Your task to perform on an android device: add a label to a message in the gmail app Image 0: 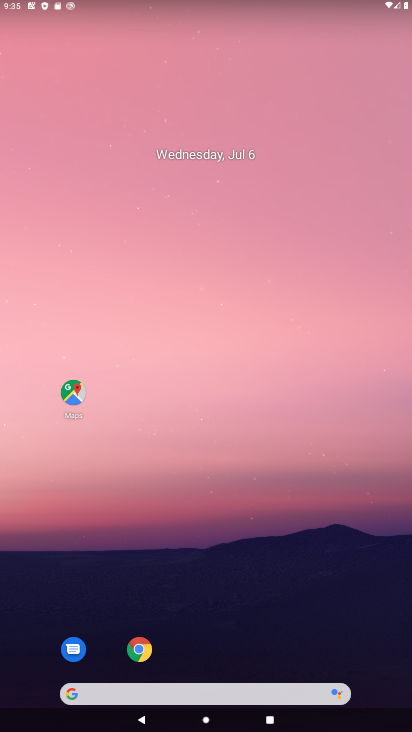
Step 0: drag from (246, 633) to (270, 135)
Your task to perform on an android device: add a label to a message in the gmail app Image 1: 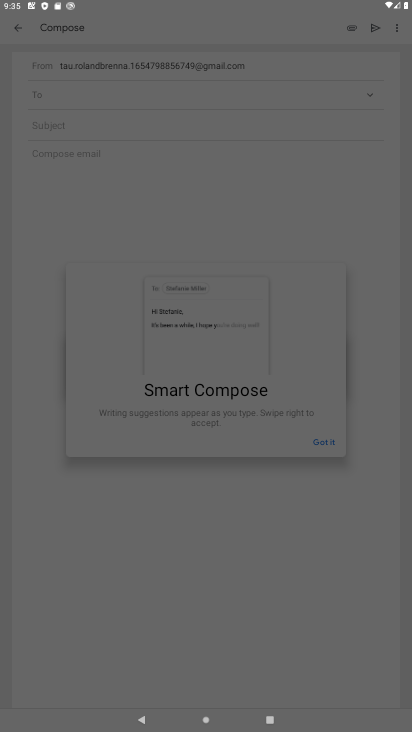
Step 1: press home button
Your task to perform on an android device: add a label to a message in the gmail app Image 2: 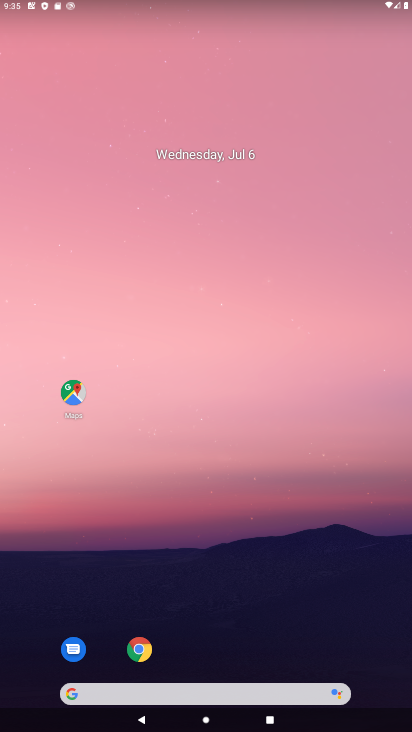
Step 2: drag from (236, 661) to (246, 221)
Your task to perform on an android device: add a label to a message in the gmail app Image 3: 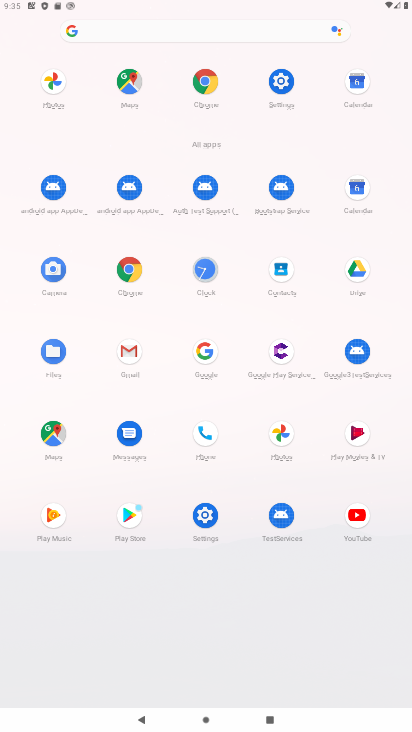
Step 3: click (132, 348)
Your task to perform on an android device: add a label to a message in the gmail app Image 4: 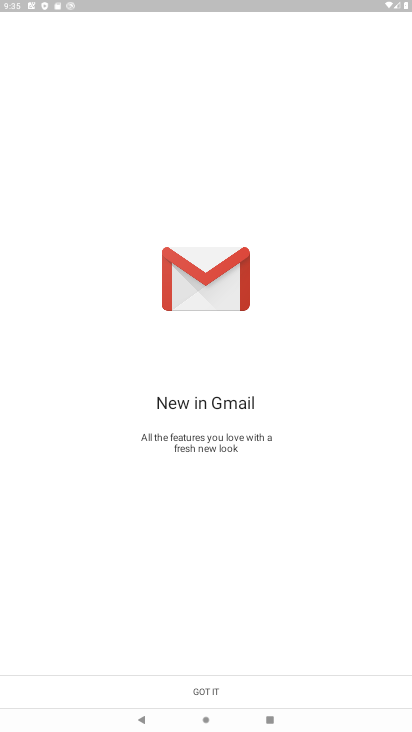
Step 4: click (216, 687)
Your task to perform on an android device: add a label to a message in the gmail app Image 5: 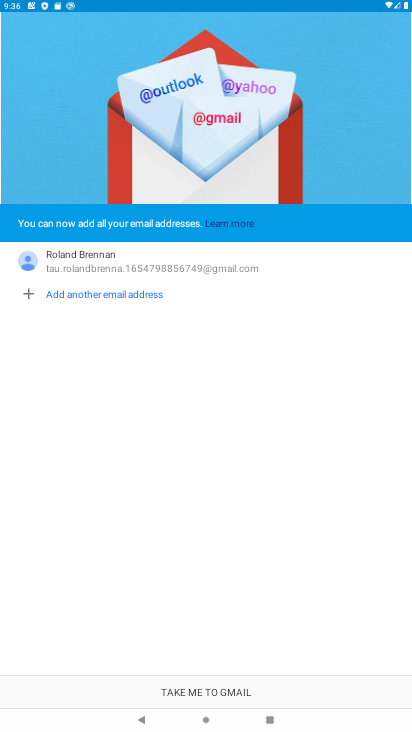
Step 5: click (221, 686)
Your task to perform on an android device: add a label to a message in the gmail app Image 6: 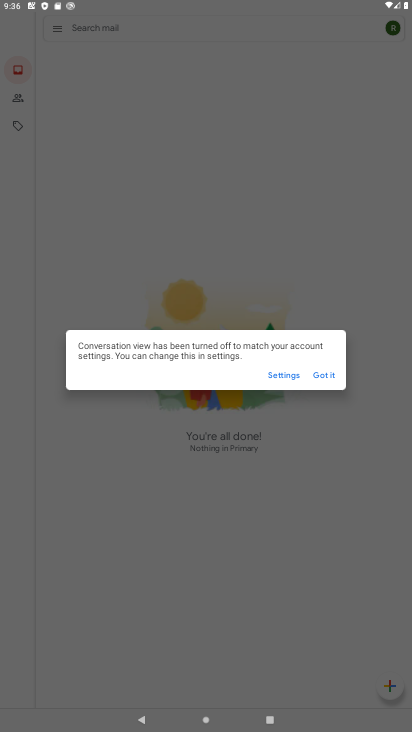
Step 6: click (335, 371)
Your task to perform on an android device: add a label to a message in the gmail app Image 7: 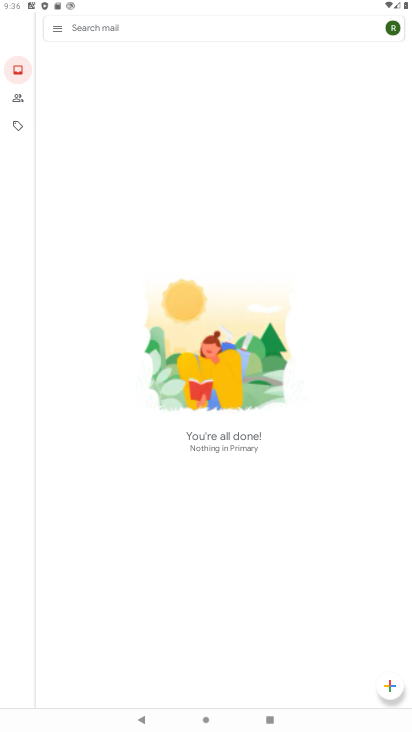
Step 7: click (60, 32)
Your task to perform on an android device: add a label to a message in the gmail app Image 8: 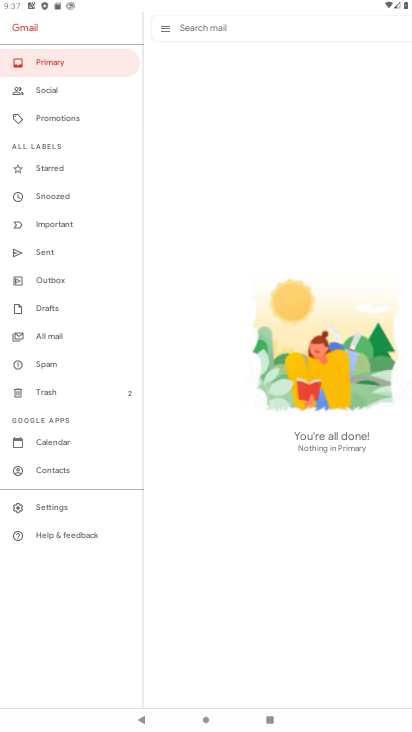
Step 8: click (57, 332)
Your task to perform on an android device: add a label to a message in the gmail app Image 9: 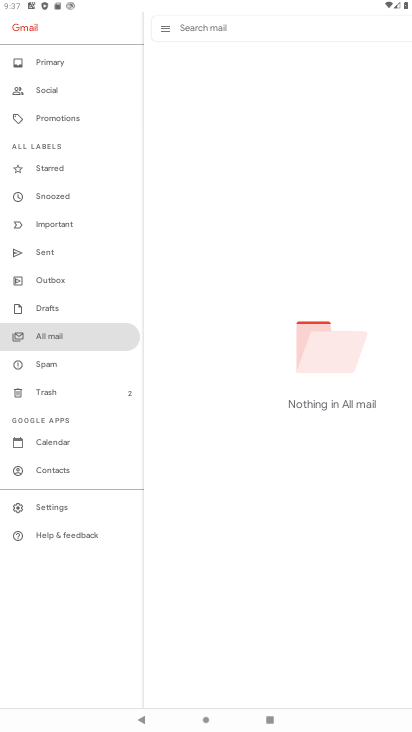
Step 9: task complete